Your task to perform on an android device: turn off data saver in the chrome app Image 0: 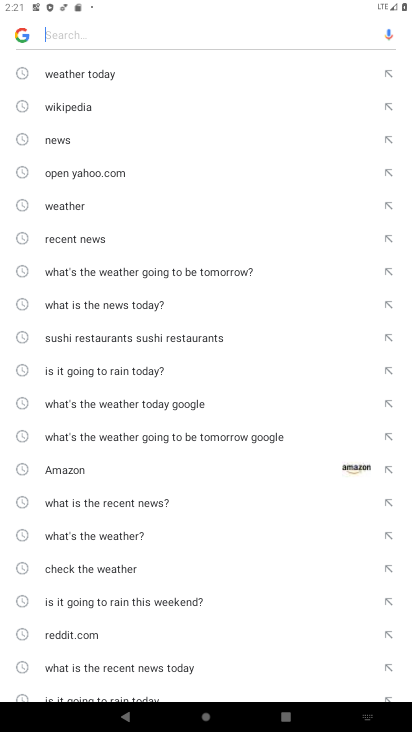
Step 0: drag from (224, 672) to (273, 423)
Your task to perform on an android device: turn off data saver in the chrome app Image 1: 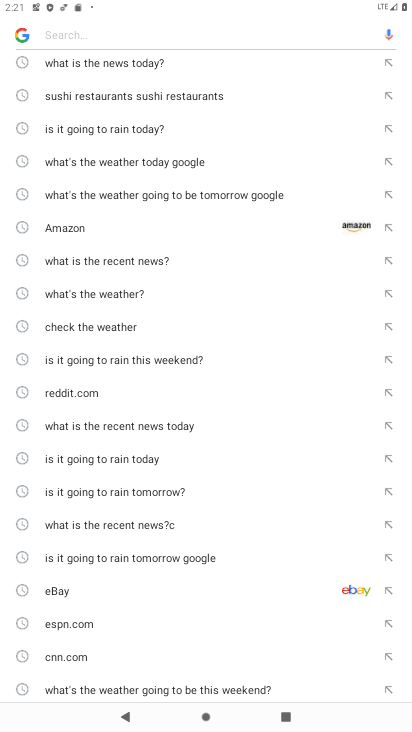
Step 1: drag from (134, 668) to (257, 301)
Your task to perform on an android device: turn off data saver in the chrome app Image 2: 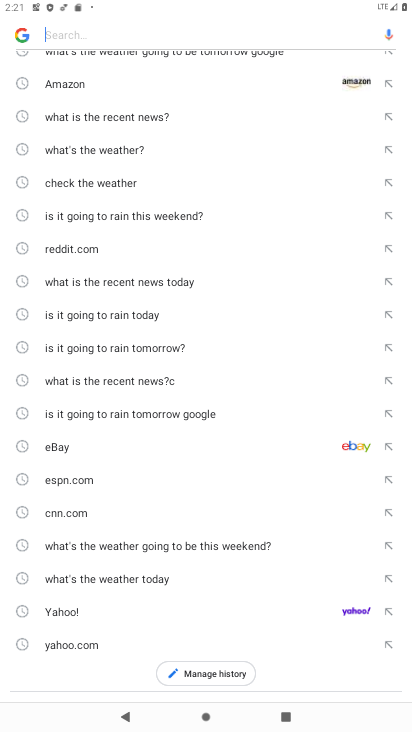
Step 2: drag from (117, 664) to (184, 354)
Your task to perform on an android device: turn off data saver in the chrome app Image 3: 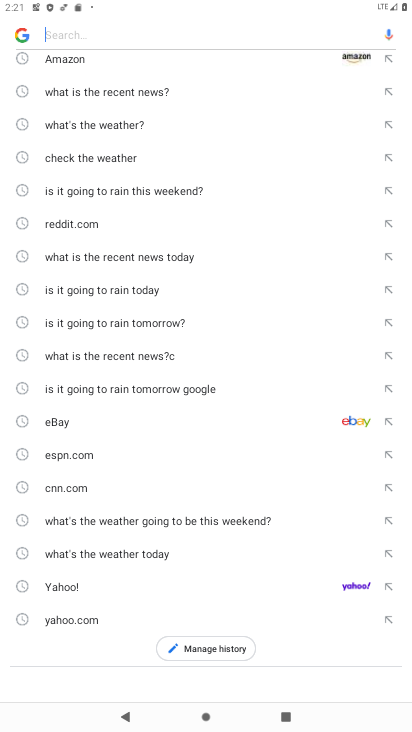
Step 3: drag from (306, 169) to (275, 584)
Your task to perform on an android device: turn off data saver in the chrome app Image 4: 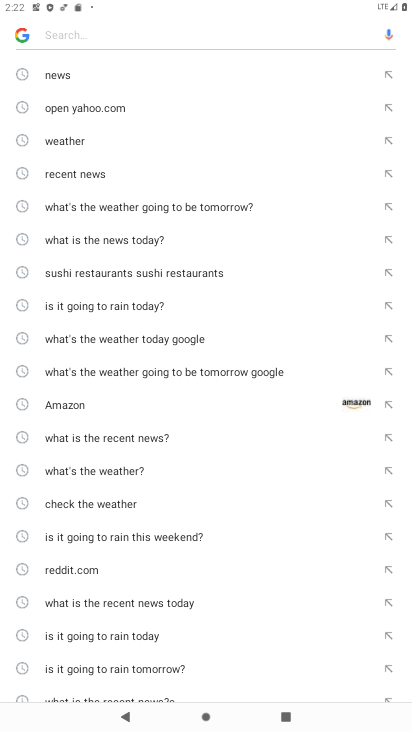
Step 4: drag from (179, 610) to (256, 282)
Your task to perform on an android device: turn off data saver in the chrome app Image 5: 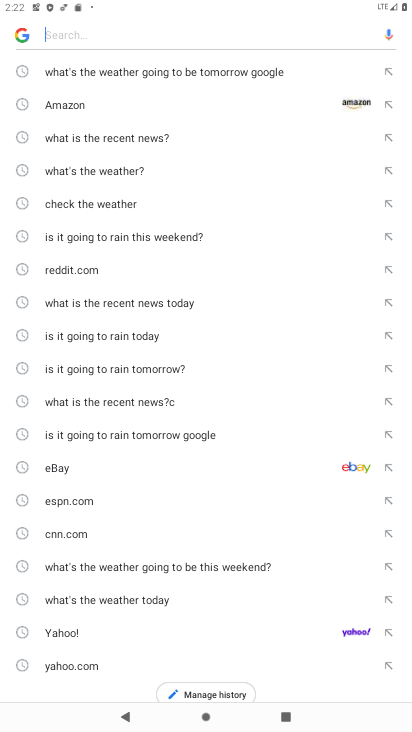
Step 5: drag from (189, 555) to (287, 45)
Your task to perform on an android device: turn off data saver in the chrome app Image 6: 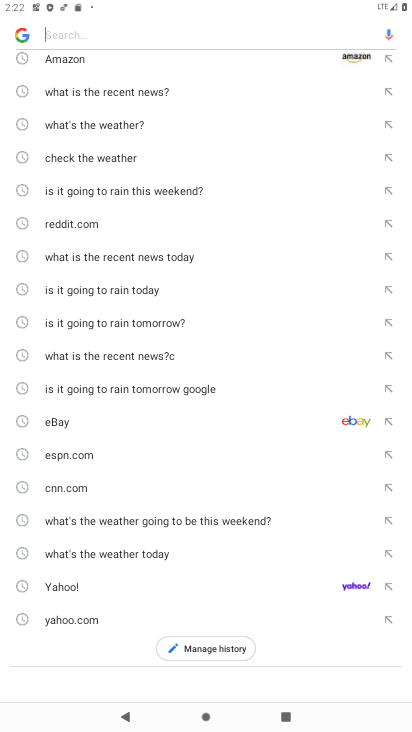
Step 6: drag from (194, 93) to (208, 670)
Your task to perform on an android device: turn off data saver in the chrome app Image 7: 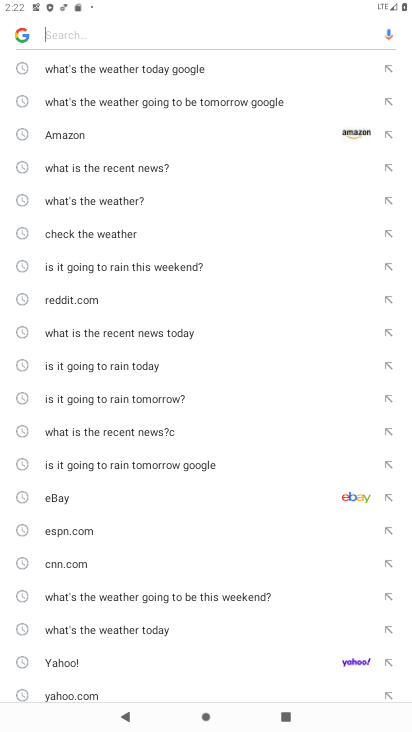
Step 7: press home button
Your task to perform on an android device: turn off data saver in the chrome app Image 8: 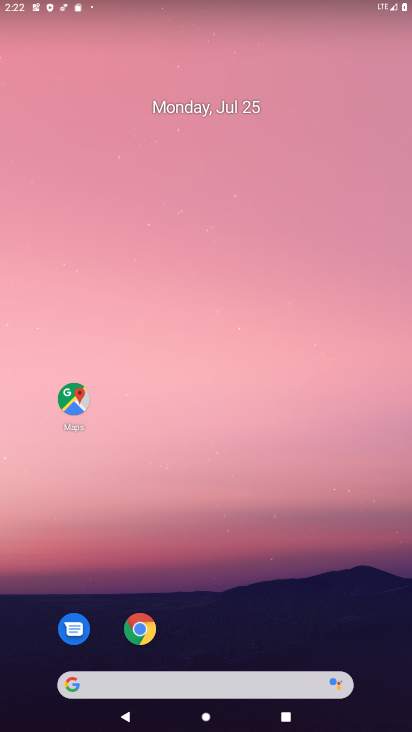
Step 8: drag from (202, 639) to (213, 433)
Your task to perform on an android device: turn off data saver in the chrome app Image 9: 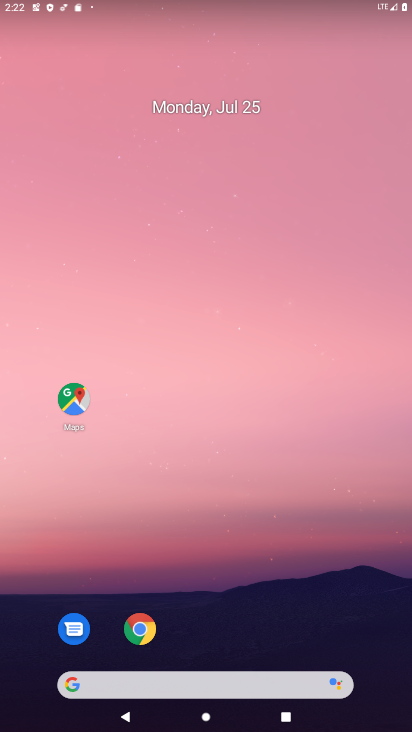
Step 9: drag from (180, 41) to (281, 729)
Your task to perform on an android device: turn off data saver in the chrome app Image 10: 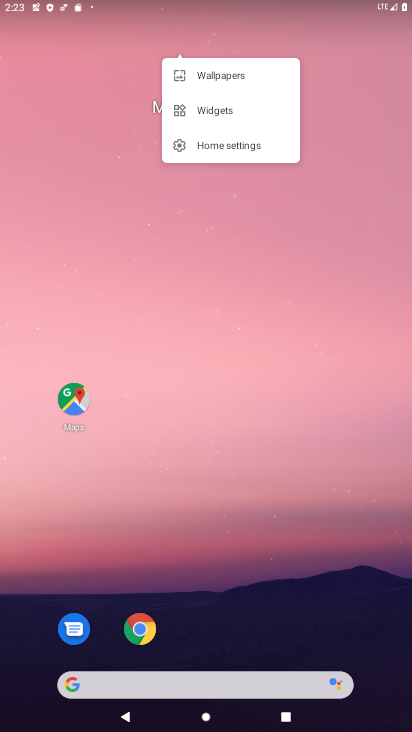
Step 10: drag from (180, 637) to (226, 160)
Your task to perform on an android device: turn off data saver in the chrome app Image 11: 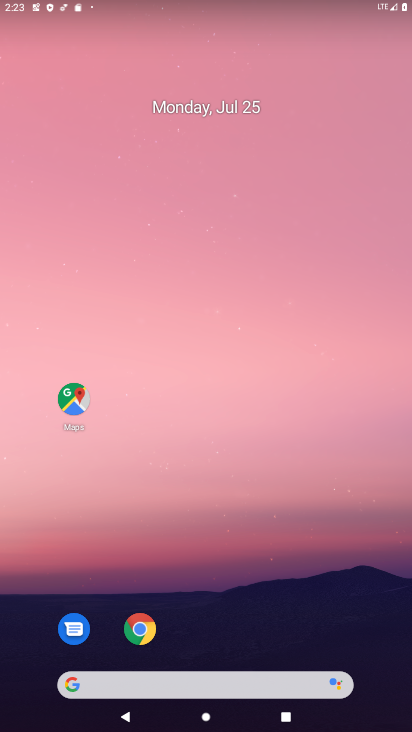
Step 11: drag from (166, 602) to (275, 6)
Your task to perform on an android device: turn off data saver in the chrome app Image 12: 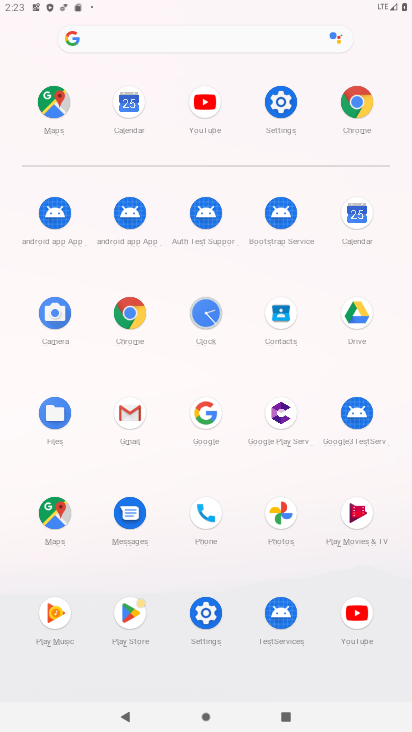
Step 12: drag from (166, 502) to (199, 323)
Your task to perform on an android device: turn off data saver in the chrome app Image 13: 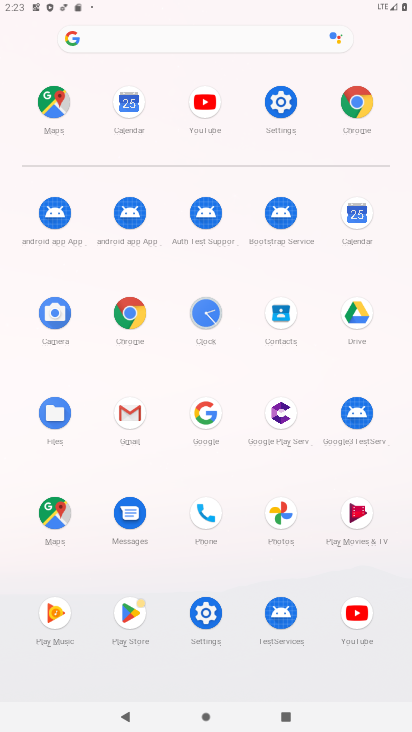
Step 13: drag from (201, 564) to (179, 385)
Your task to perform on an android device: turn off data saver in the chrome app Image 14: 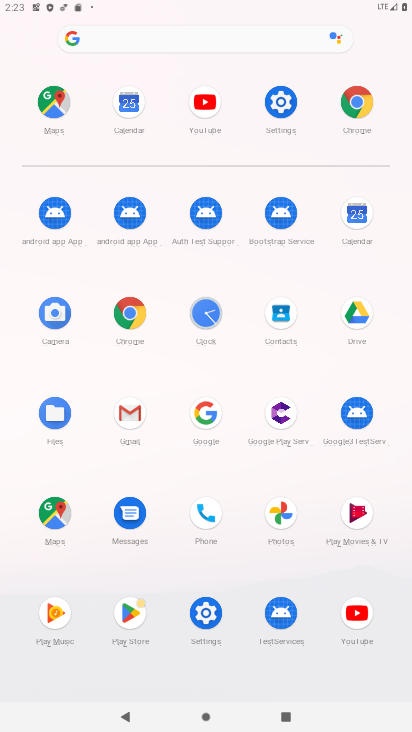
Step 14: drag from (171, 555) to (191, 253)
Your task to perform on an android device: turn off data saver in the chrome app Image 15: 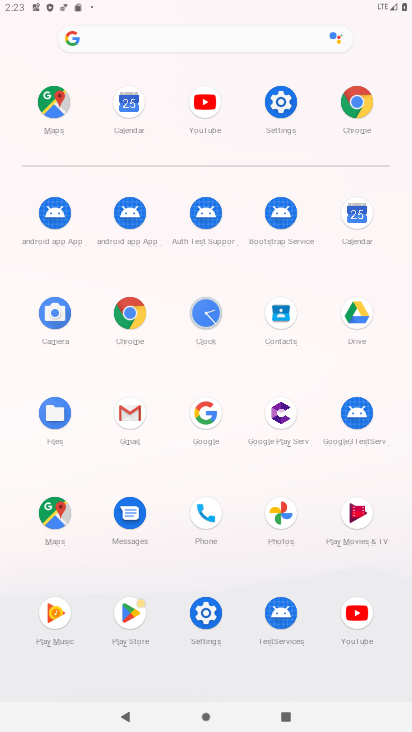
Step 15: click (356, 101)
Your task to perform on an android device: turn off data saver in the chrome app Image 16: 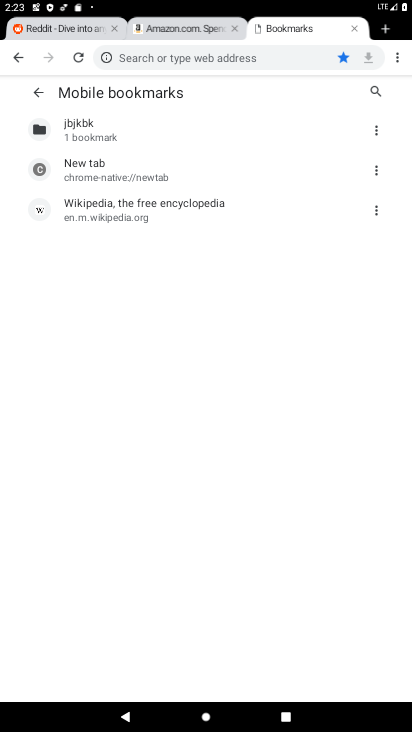
Step 16: click (221, 160)
Your task to perform on an android device: turn off data saver in the chrome app Image 17: 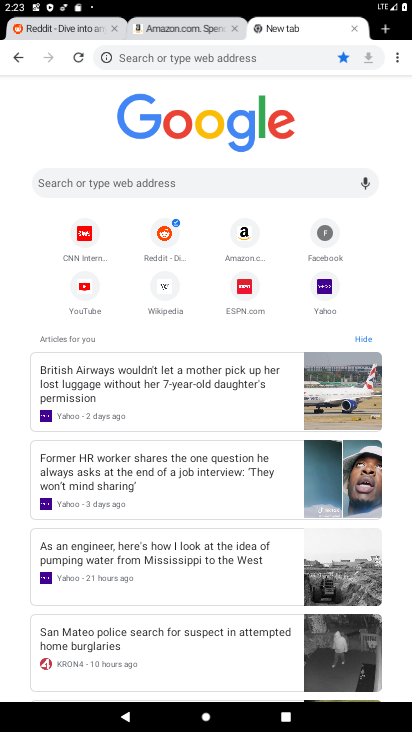
Step 17: drag from (395, 60) to (299, 293)
Your task to perform on an android device: turn off data saver in the chrome app Image 18: 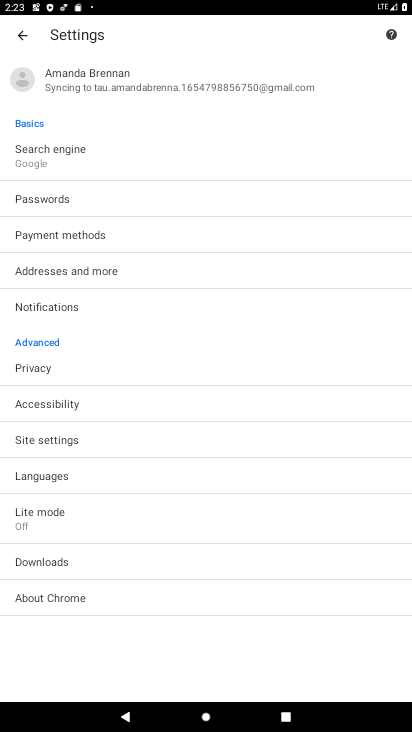
Step 18: click (74, 528)
Your task to perform on an android device: turn off data saver in the chrome app Image 19: 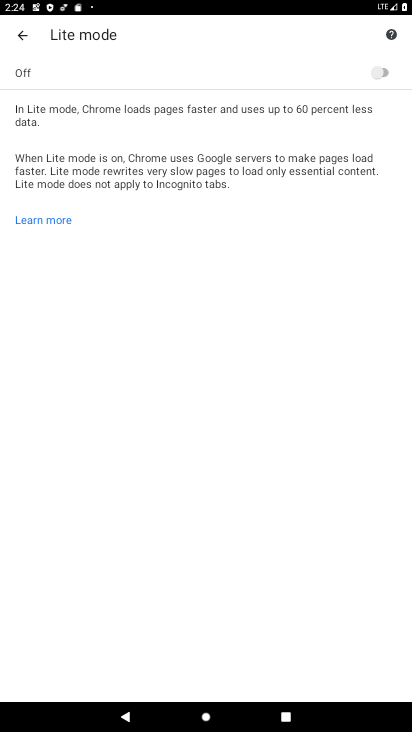
Step 19: task complete